Your task to perform on an android device: When is my next appointment? Image 0: 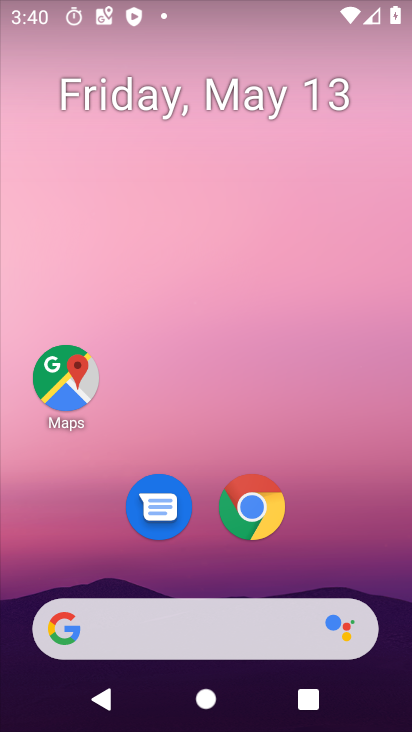
Step 0: drag from (290, 561) to (275, 94)
Your task to perform on an android device: When is my next appointment? Image 1: 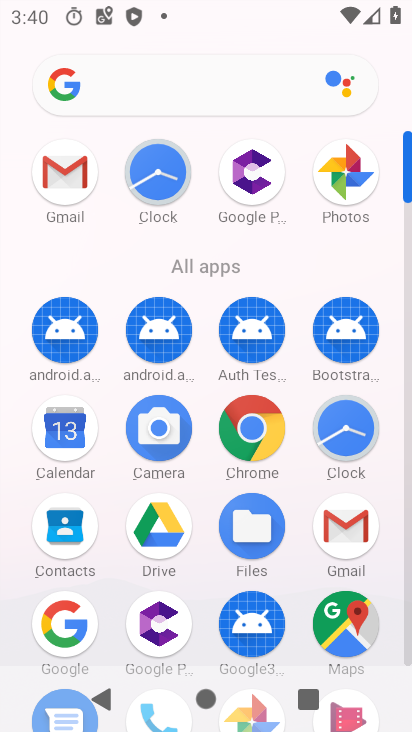
Step 1: click (73, 436)
Your task to perform on an android device: When is my next appointment? Image 2: 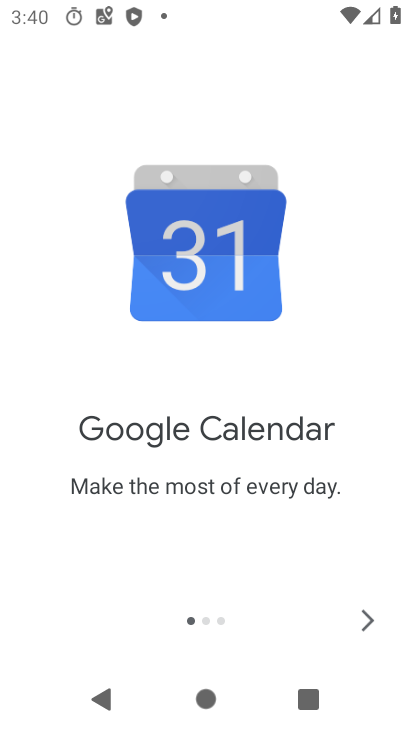
Step 2: click (377, 618)
Your task to perform on an android device: When is my next appointment? Image 3: 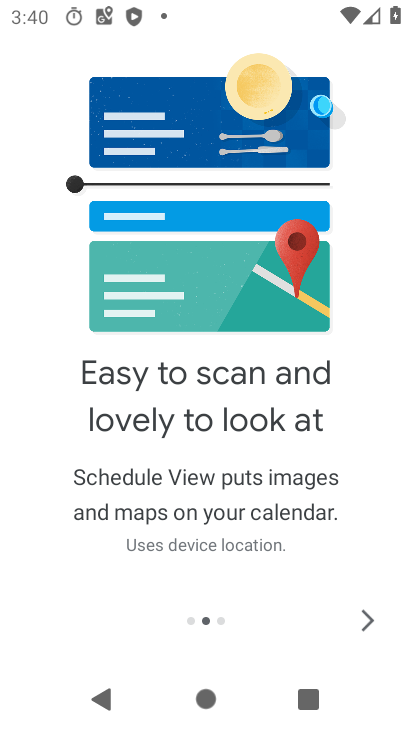
Step 3: click (374, 615)
Your task to perform on an android device: When is my next appointment? Image 4: 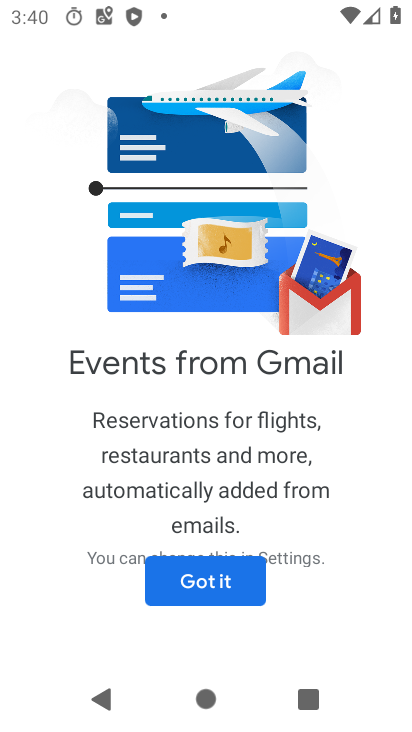
Step 4: click (264, 582)
Your task to perform on an android device: When is my next appointment? Image 5: 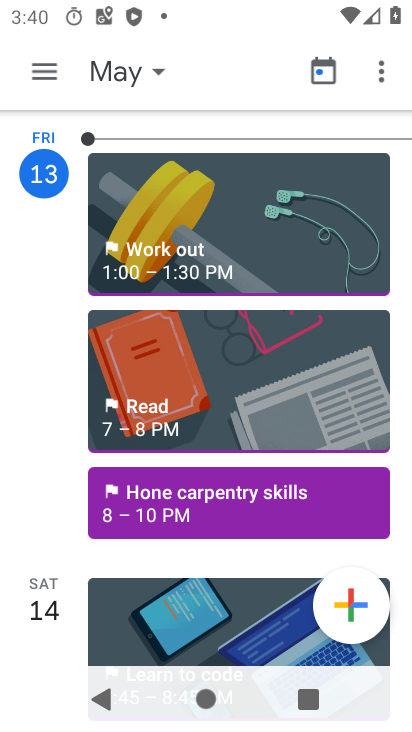
Step 5: click (46, 589)
Your task to perform on an android device: When is my next appointment? Image 6: 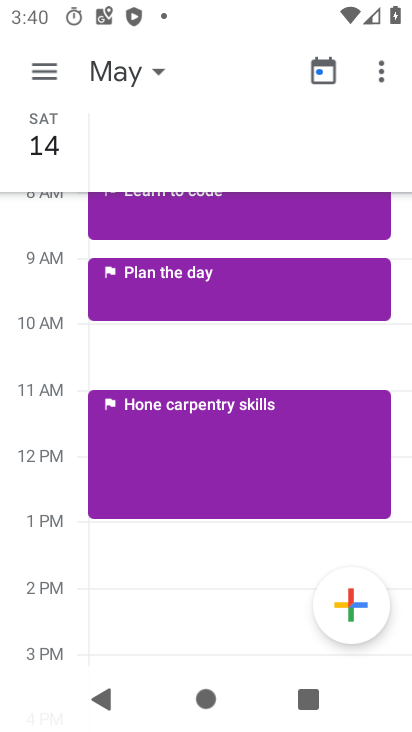
Step 6: task complete